Your task to perform on an android device: Go to Yahoo.com Image 0: 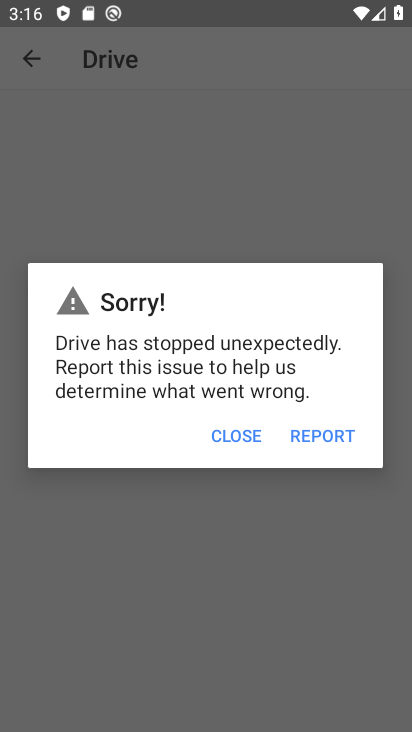
Step 0: press home button
Your task to perform on an android device: Go to Yahoo.com Image 1: 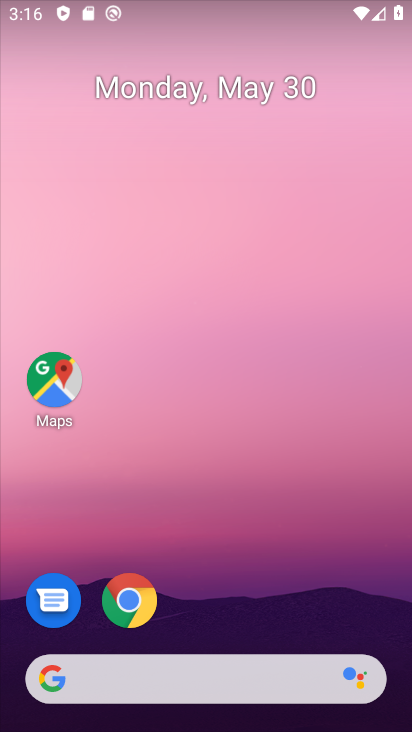
Step 1: drag from (248, 624) to (209, 206)
Your task to perform on an android device: Go to Yahoo.com Image 2: 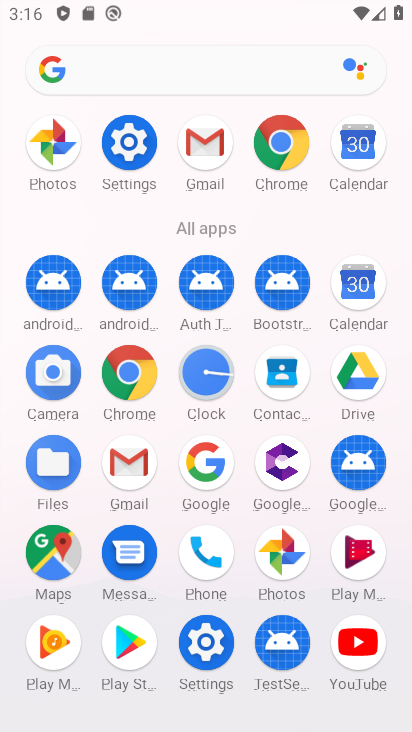
Step 2: click (290, 149)
Your task to perform on an android device: Go to Yahoo.com Image 3: 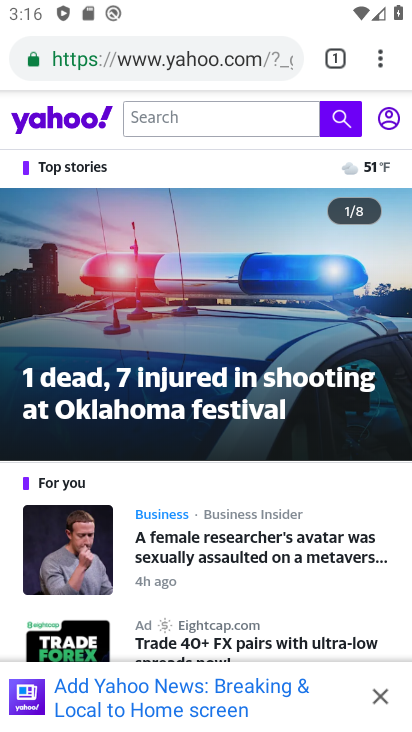
Step 3: task complete